Your task to perform on an android device: create a new album in the google photos Image 0: 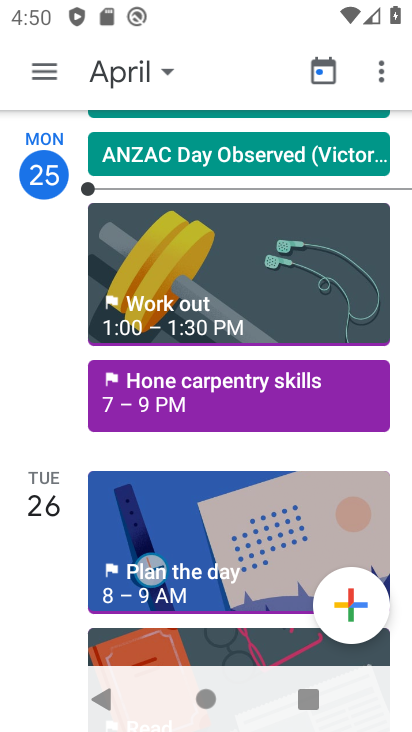
Step 0: press home button
Your task to perform on an android device: create a new album in the google photos Image 1: 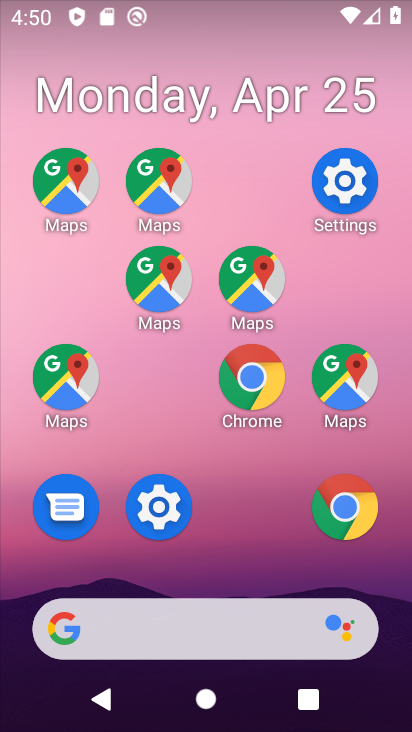
Step 1: drag from (247, 674) to (165, 118)
Your task to perform on an android device: create a new album in the google photos Image 2: 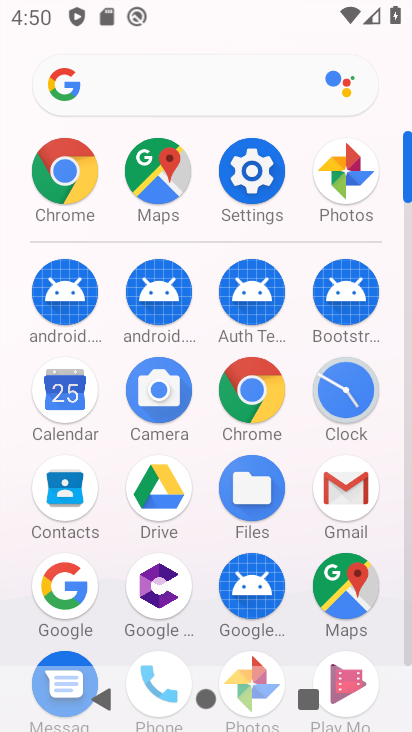
Step 2: click (249, 395)
Your task to perform on an android device: create a new album in the google photos Image 3: 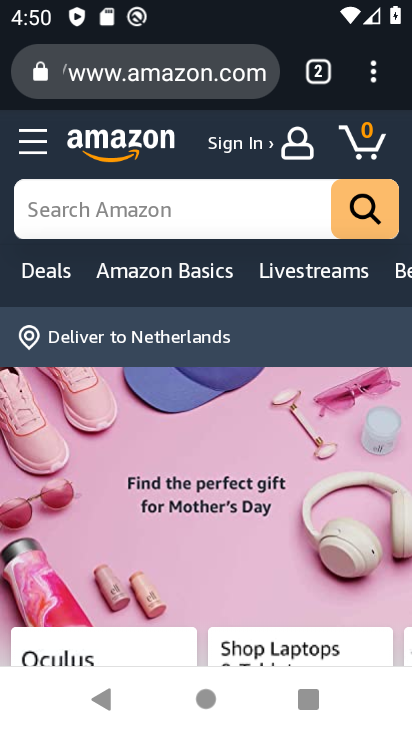
Step 3: press home button
Your task to perform on an android device: create a new album in the google photos Image 4: 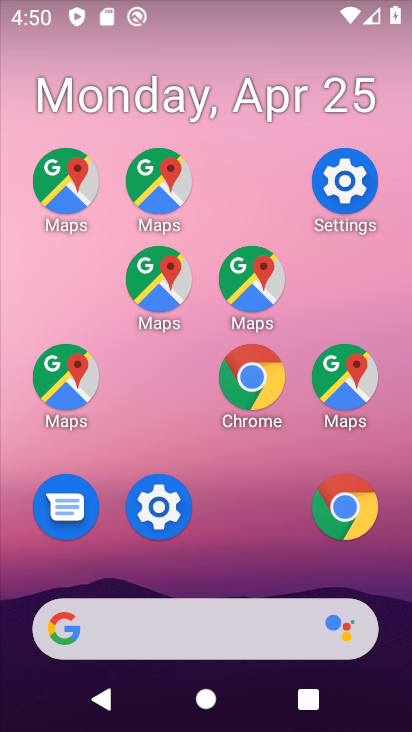
Step 4: drag from (247, 675) to (145, 131)
Your task to perform on an android device: create a new album in the google photos Image 5: 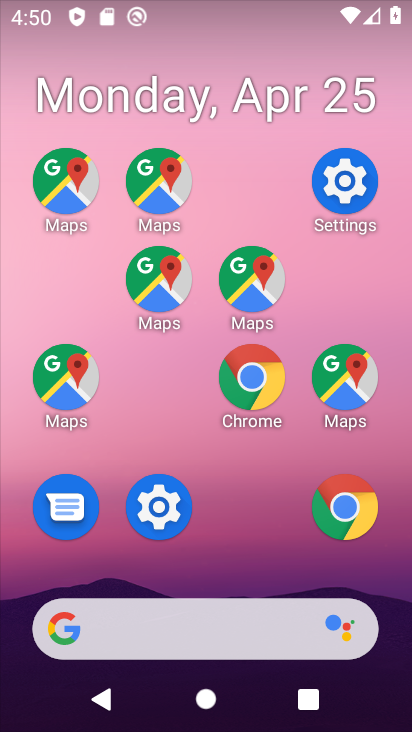
Step 5: drag from (211, 593) to (87, 133)
Your task to perform on an android device: create a new album in the google photos Image 6: 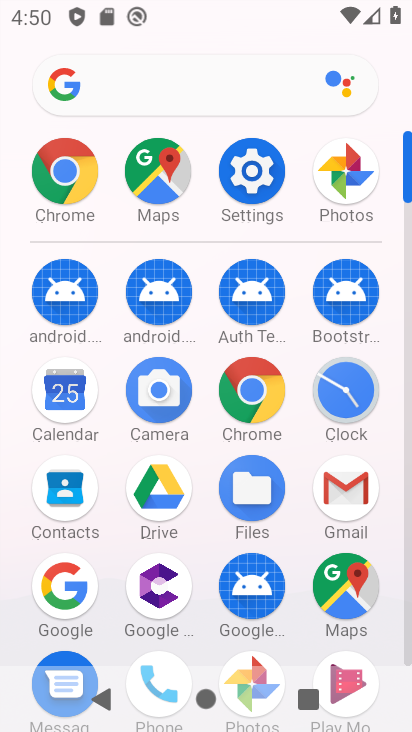
Step 6: drag from (240, 692) to (109, 24)
Your task to perform on an android device: create a new album in the google photos Image 7: 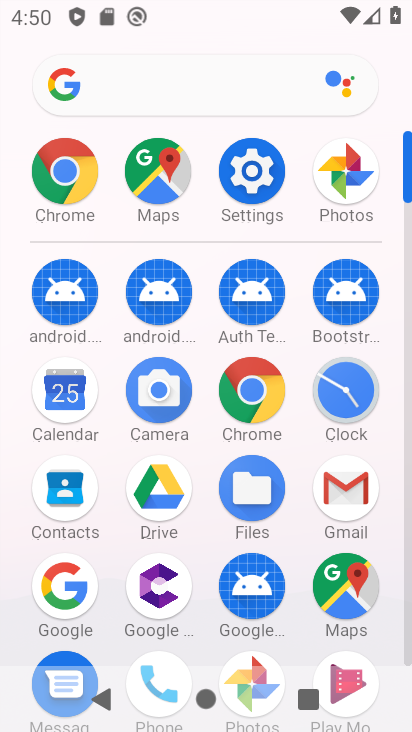
Step 7: click (256, 660)
Your task to perform on an android device: create a new album in the google photos Image 8: 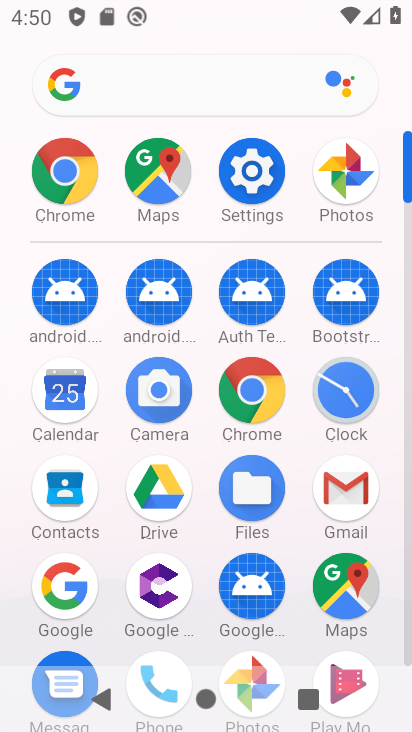
Step 8: click (256, 660)
Your task to perform on an android device: create a new album in the google photos Image 9: 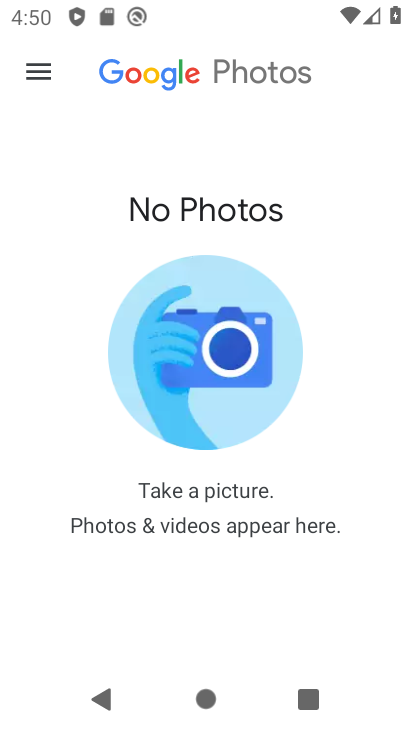
Step 9: click (253, 668)
Your task to perform on an android device: create a new album in the google photos Image 10: 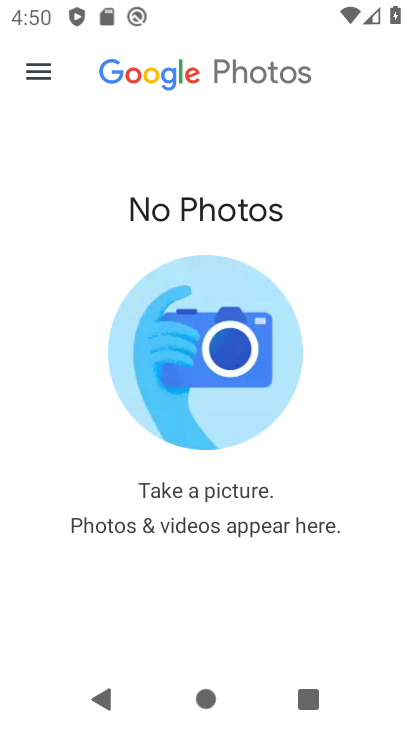
Step 10: click (31, 63)
Your task to perform on an android device: create a new album in the google photos Image 11: 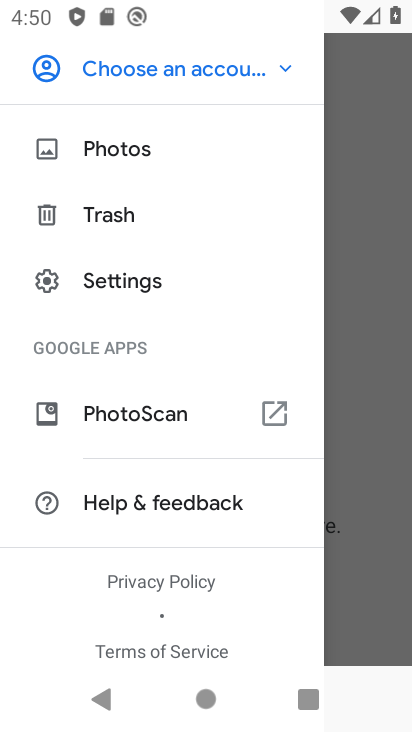
Step 11: click (122, 144)
Your task to perform on an android device: create a new album in the google photos Image 12: 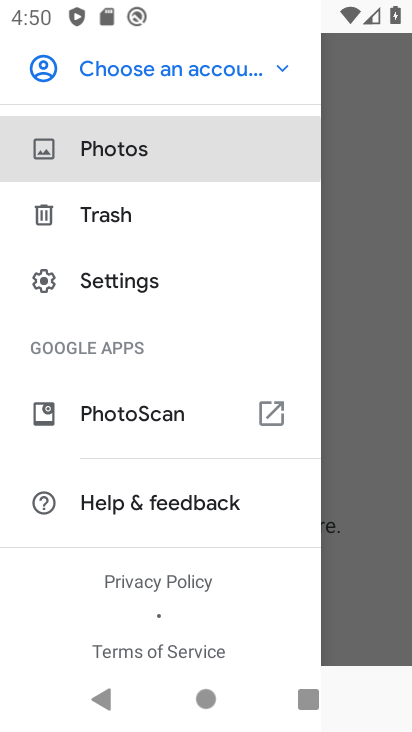
Step 12: click (122, 144)
Your task to perform on an android device: create a new album in the google photos Image 13: 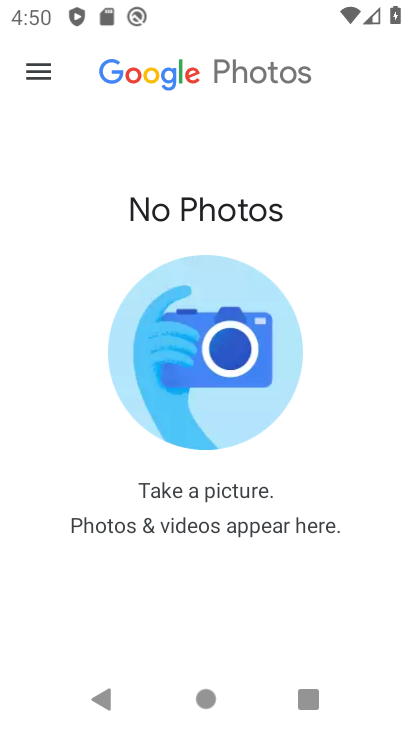
Step 13: click (39, 74)
Your task to perform on an android device: create a new album in the google photos Image 14: 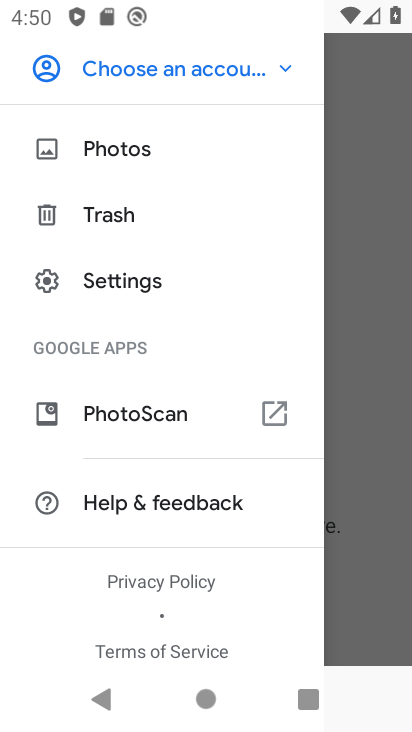
Step 14: click (111, 273)
Your task to perform on an android device: create a new album in the google photos Image 15: 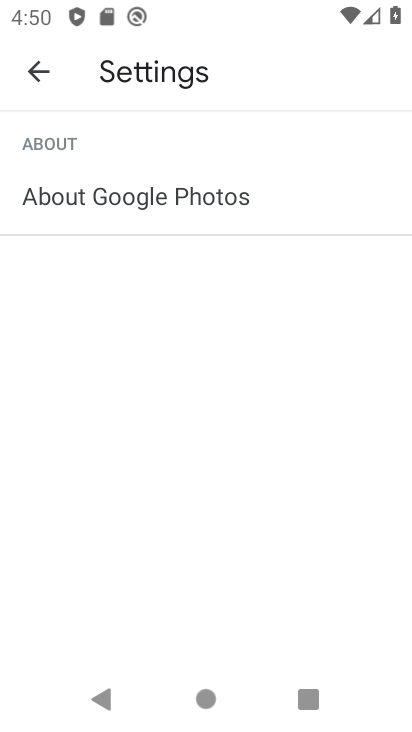
Step 15: click (43, 75)
Your task to perform on an android device: create a new album in the google photos Image 16: 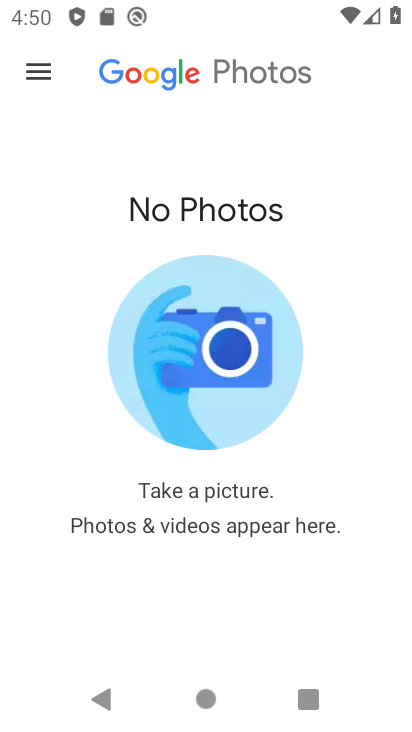
Step 16: task complete